Your task to perform on an android device: Open accessibility settings Image 0: 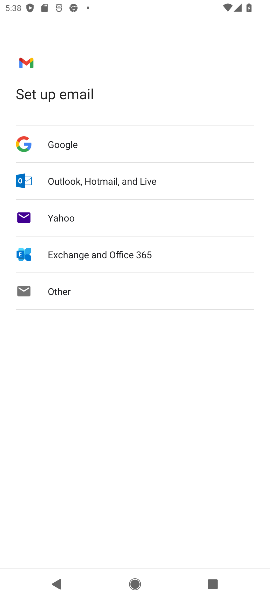
Step 0: press home button
Your task to perform on an android device: Open accessibility settings Image 1: 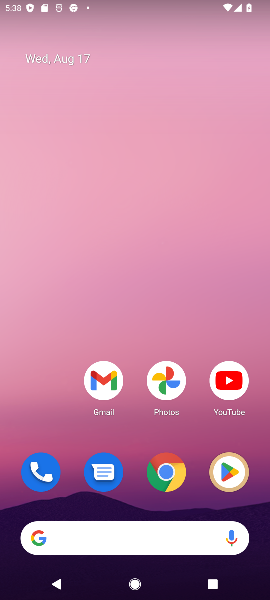
Step 1: drag from (132, 437) to (132, 19)
Your task to perform on an android device: Open accessibility settings Image 2: 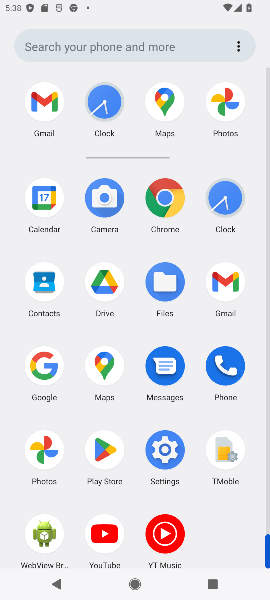
Step 2: click (163, 440)
Your task to perform on an android device: Open accessibility settings Image 3: 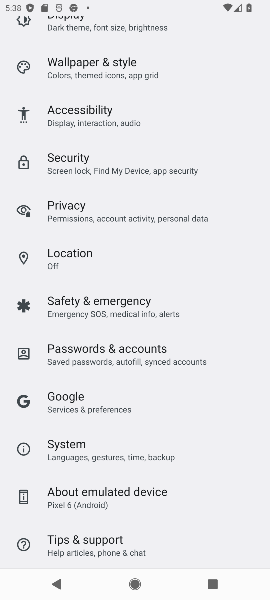
Step 3: click (102, 126)
Your task to perform on an android device: Open accessibility settings Image 4: 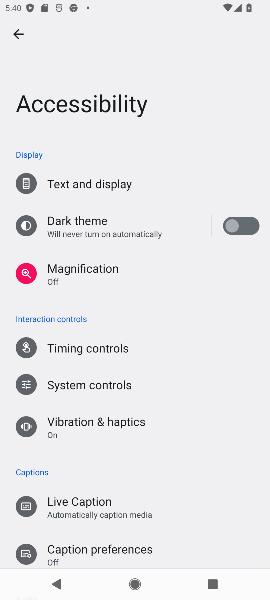
Step 4: task complete